Your task to perform on an android device: turn on data saver in the chrome app Image 0: 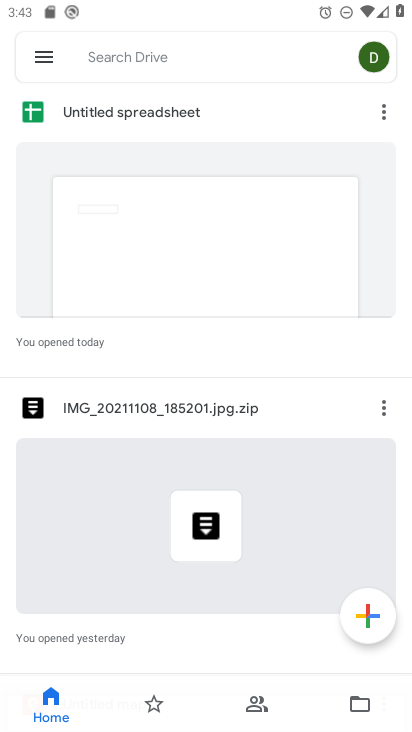
Step 0: press home button
Your task to perform on an android device: turn on data saver in the chrome app Image 1: 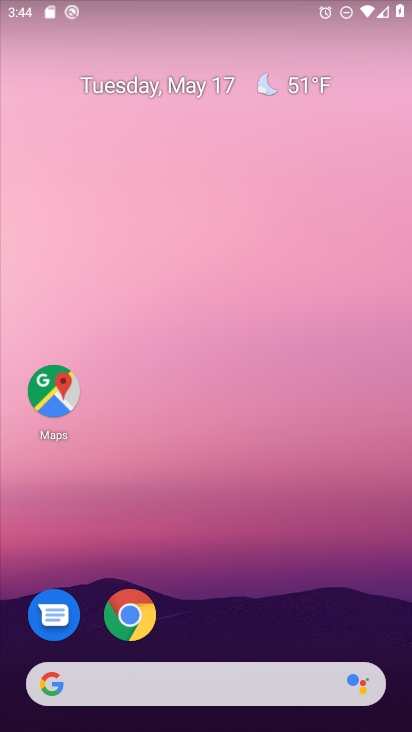
Step 1: click (130, 608)
Your task to perform on an android device: turn on data saver in the chrome app Image 2: 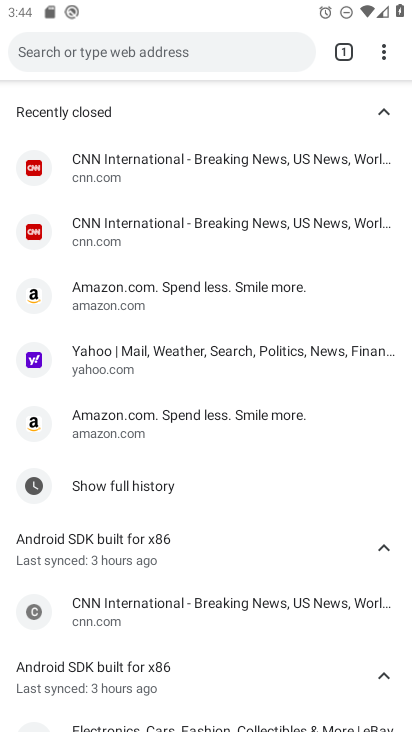
Step 2: click (383, 56)
Your task to perform on an android device: turn on data saver in the chrome app Image 3: 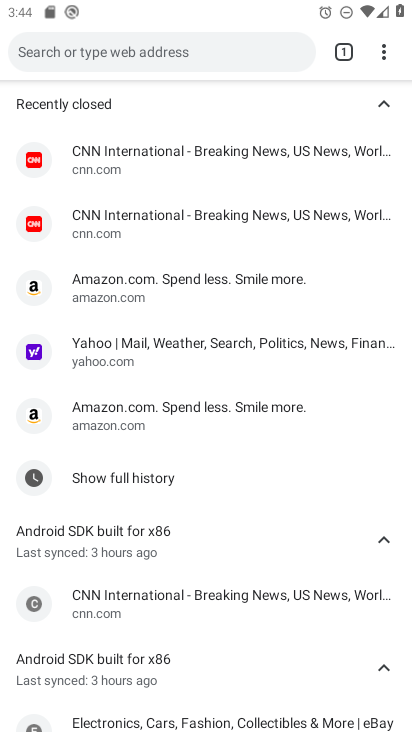
Step 3: click (384, 53)
Your task to perform on an android device: turn on data saver in the chrome app Image 4: 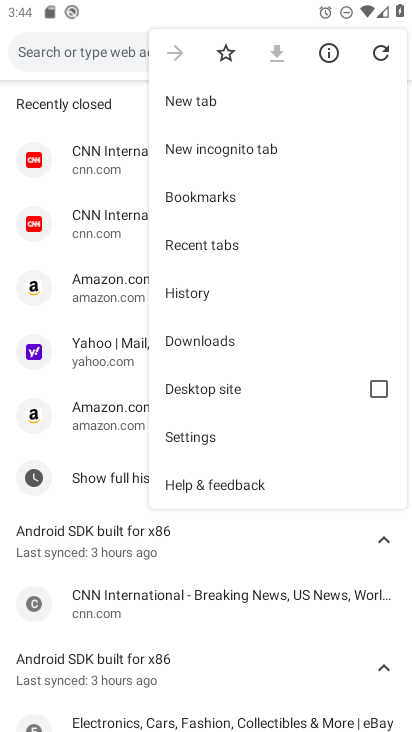
Step 4: click (227, 434)
Your task to perform on an android device: turn on data saver in the chrome app Image 5: 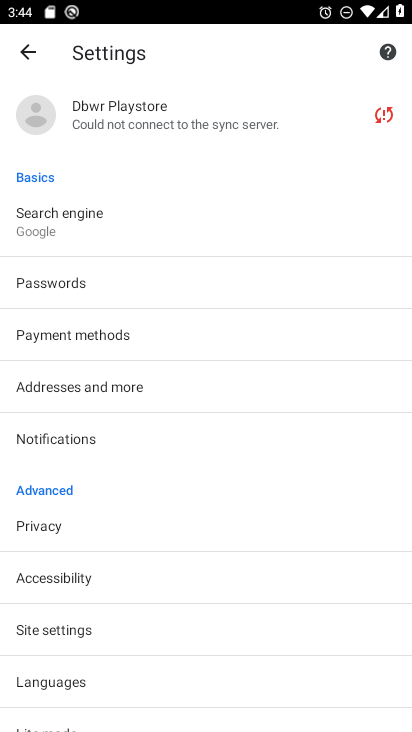
Step 5: drag from (114, 675) to (157, 322)
Your task to perform on an android device: turn on data saver in the chrome app Image 6: 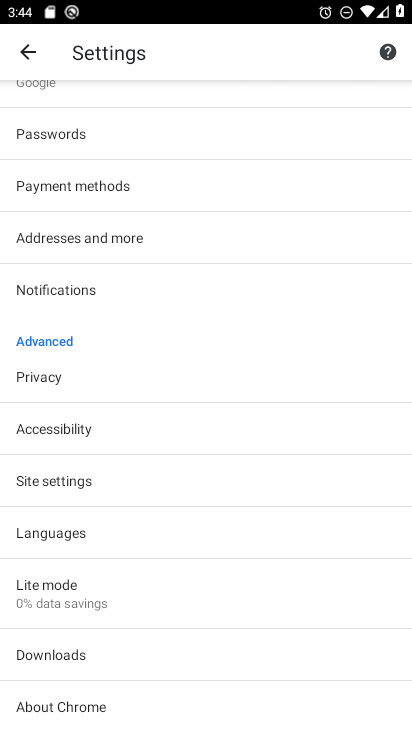
Step 6: click (91, 588)
Your task to perform on an android device: turn on data saver in the chrome app Image 7: 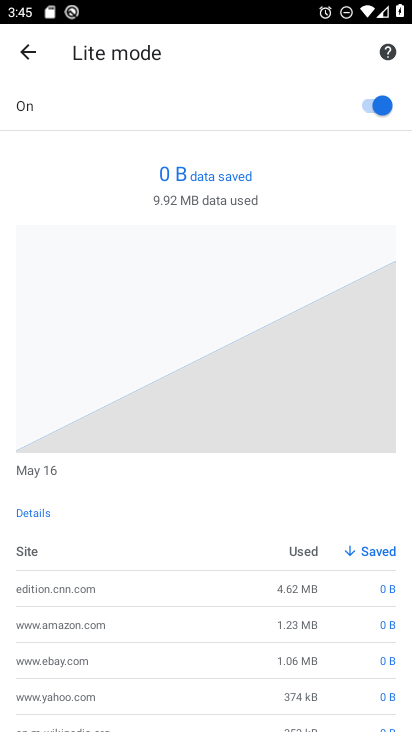
Step 7: task complete